Your task to perform on an android device: Open settings Image 0: 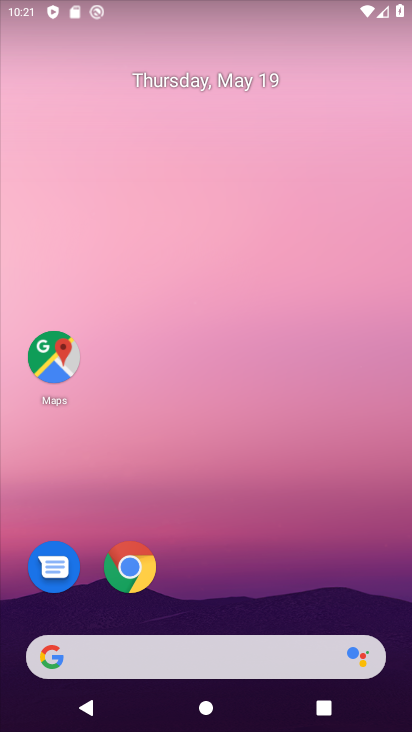
Step 0: drag from (381, 608) to (315, 118)
Your task to perform on an android device: Open settings Image 1: 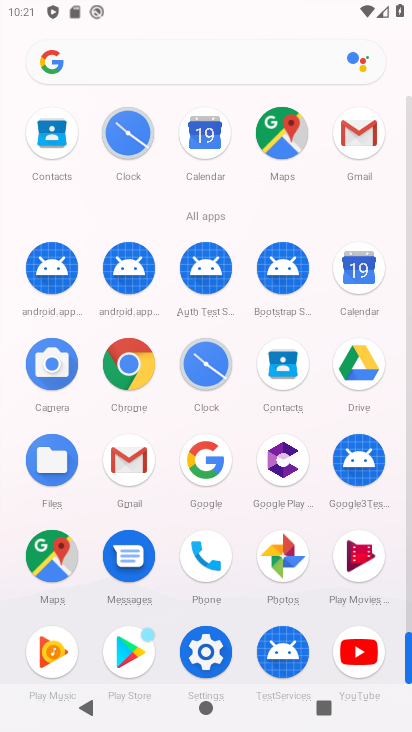
Step 1: click (409, 610)
Your task to perform on an android device: Open settings Image 2: 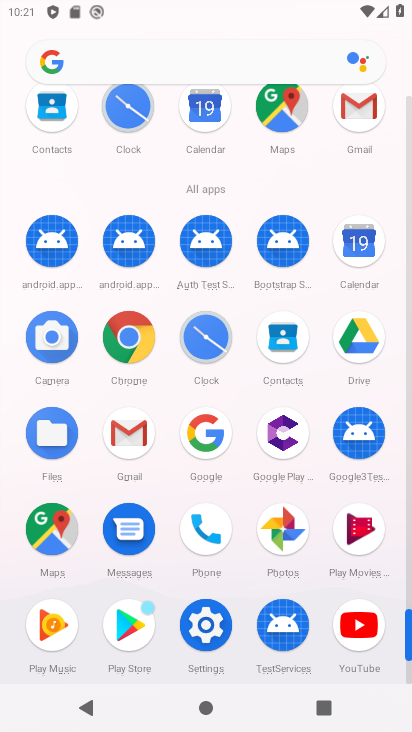
Step 2: click (201, 629)
Your task to perform on an android device: Open settings Image 3: 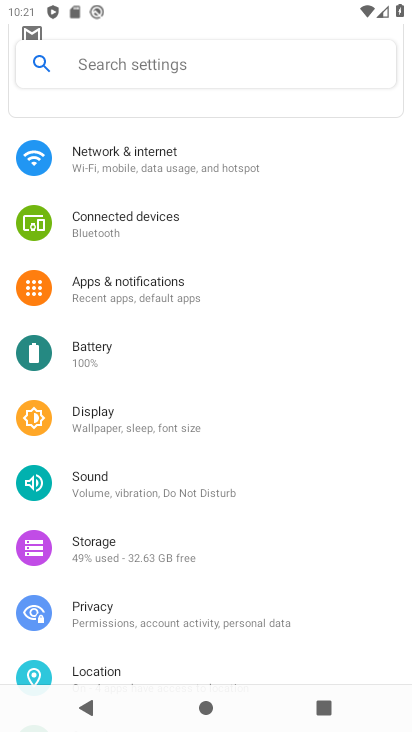
Step 3: task complete